Your task to perform on an android device: Open internet settings Image 0: 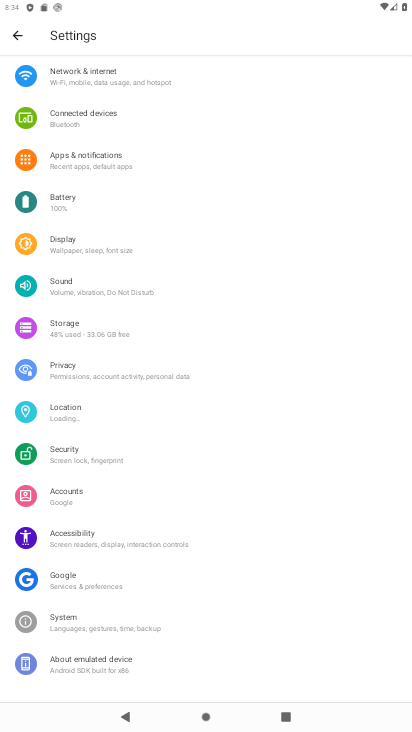
Step 0: click (145, 78)
Your task to perform on an android device: Open internet settings Image 1: 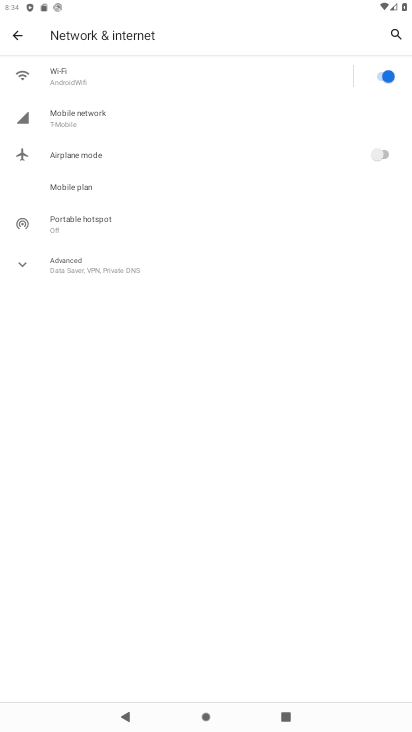
Step 1: click (110, 126)
Your task to perform on an android device: Open internet settings Image 2: 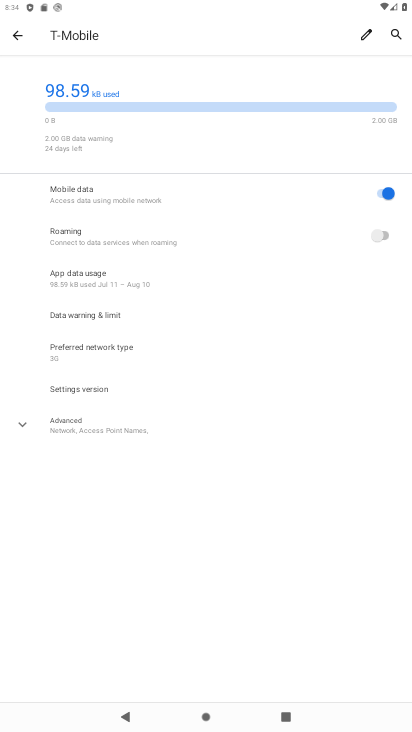
Step 2: task complete